Your task to perform on an android device: turn on location history Image 0: 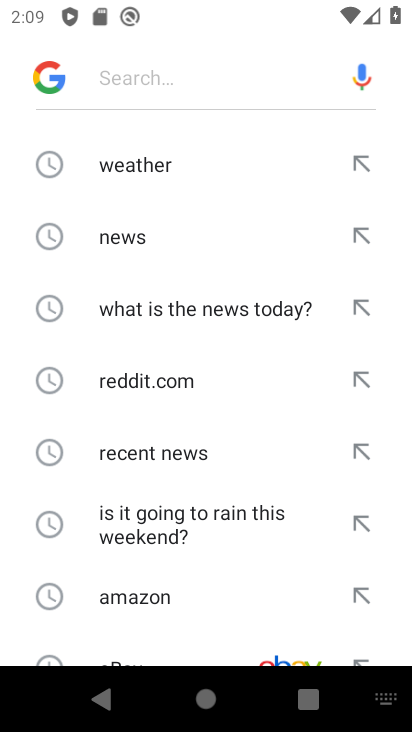
Step 0: press home button
Your task to perform on an android device: turn on location history Image 1: 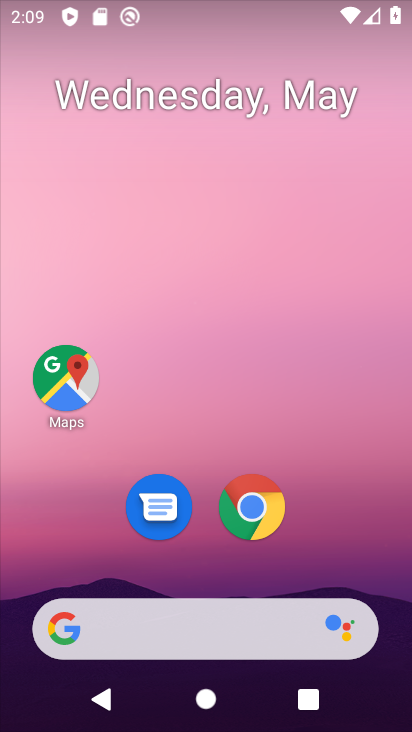
Step 1: drag from (381, 480) to (363, 182)
Your task to perform on an android device: turn on location history Image 2: 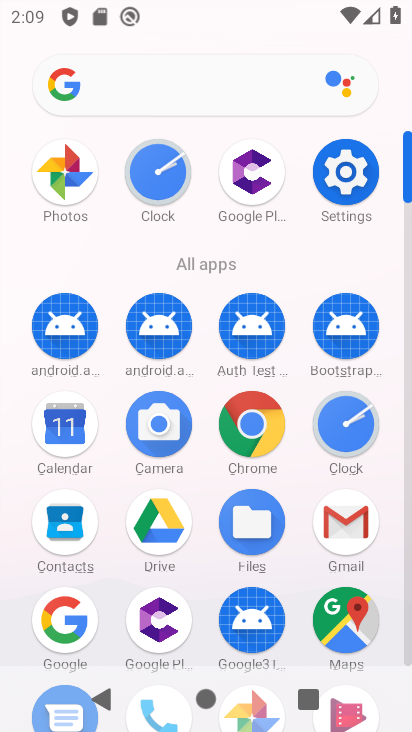
Step 2: click (357, 201)
Your task to perform on an android device: turn on location history Image 3: 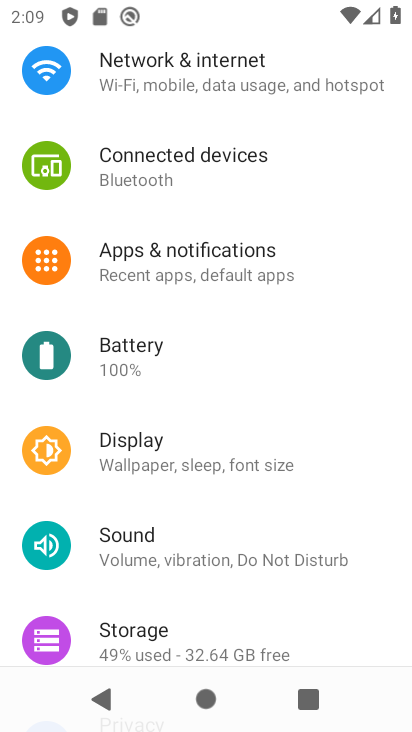
Step 3: drag from (273, 537) to (281, 233)
Your task to perform on an android device: turn on location history Image 4: 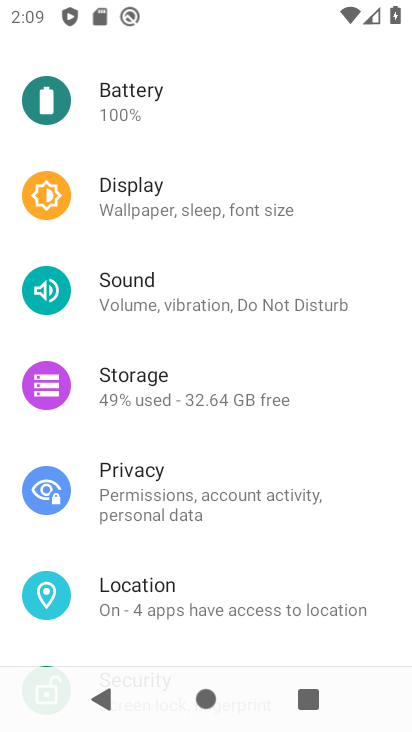
Step 4: drag from (293, 561) to (344, 254)
Your task to perform on an android device: turn on location history Image 5: 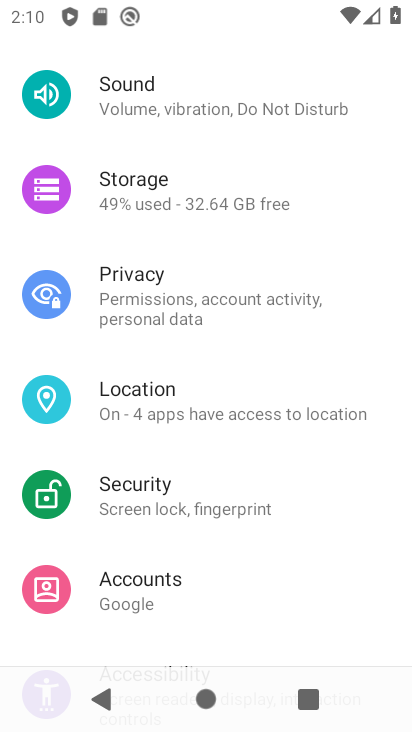
Step 5: drag from (315, 559) to (315, 308)
Your task to perform on an android device: turn on location history Image 6: 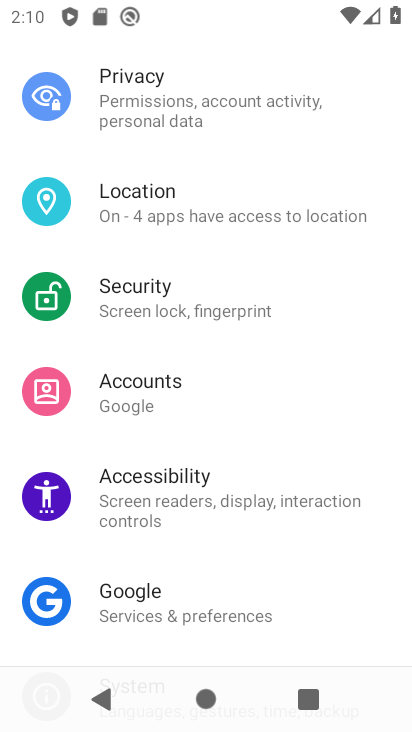
Step 6: click (194, 205)
Your task to perform on an android device: turn on location history Image 7: 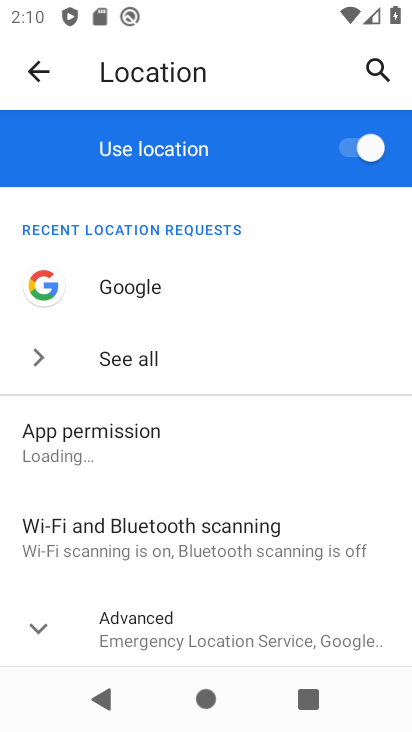
Step 7: drag from (260, 634) to (267, 338)
Your task to perform on an android device: turn on location history Image 8: 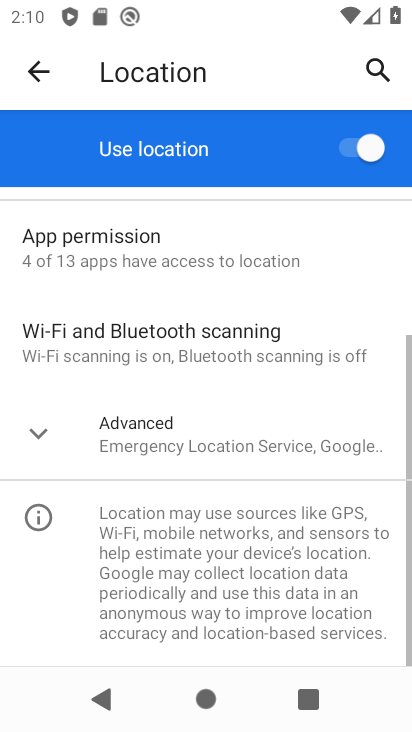
Step 8: click (61, 441)
Your task to perform on an android device: turn on location history Image 9: 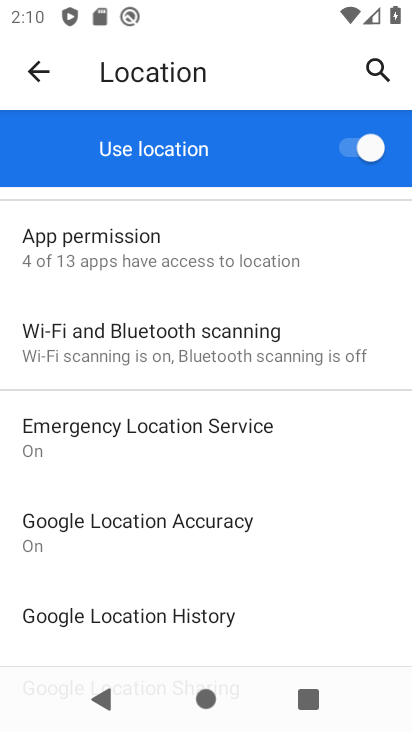
Step 9: drag from (279, 606) to (300, 280)
Your task to perform on an android device: turn on location history Image 10: 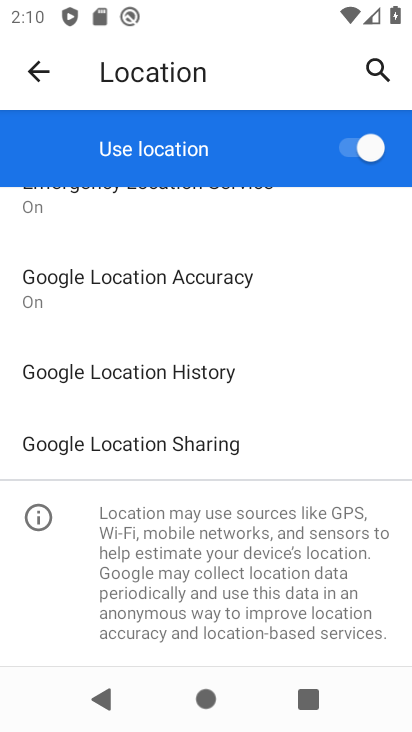
Step 10: click (132, 378)
Your task to perform on an android device: turn on location history Image 11: 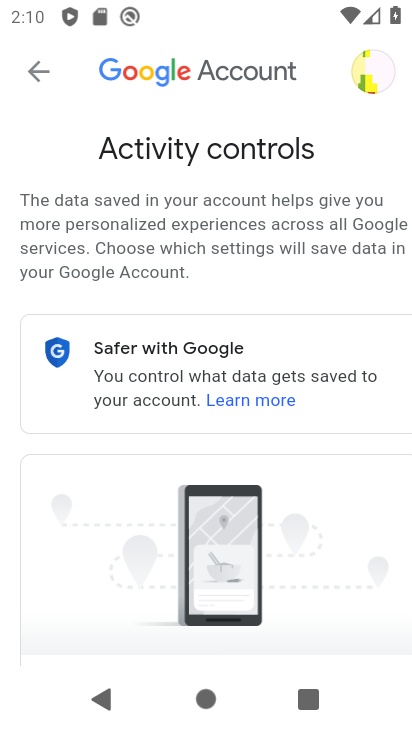
Step 11: drag from (151, 606) to (181, 270)
Your task to perform on an android device: turn on location history Image 12: 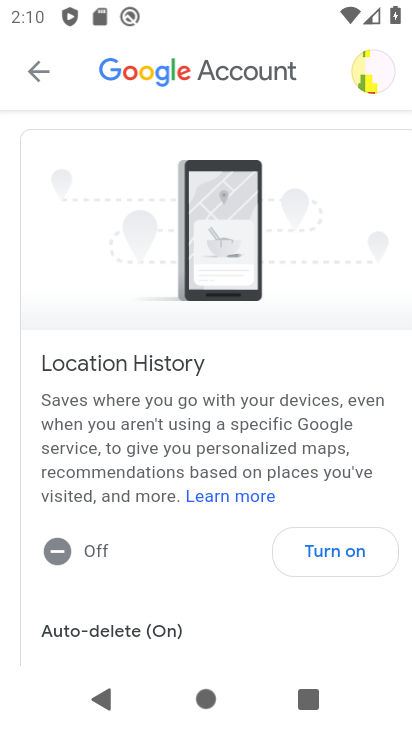
Step 12: drag from (216, 602) to (239, 408)
Your task to perform on an android device: turn on location history Image 13: 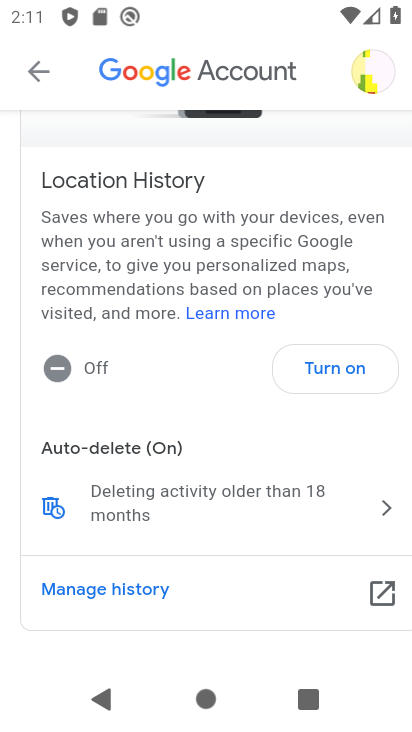
Step 13: click (315, 374)
Your task to perform on an android device: turn on location history Image 14: 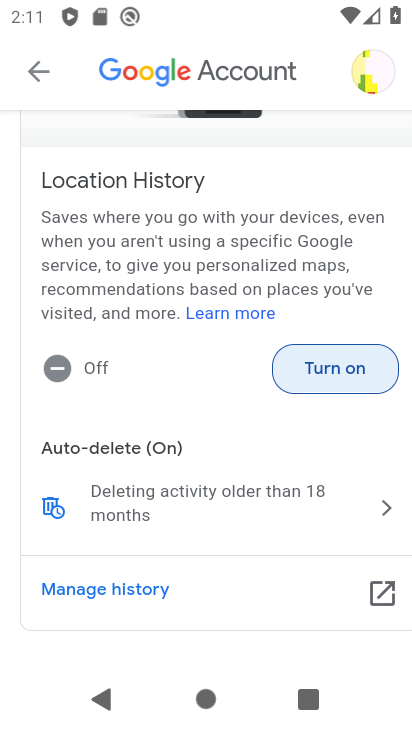
Step 14: click (321, 372)
Your task to perform on an android device: turn on location history Image 15: 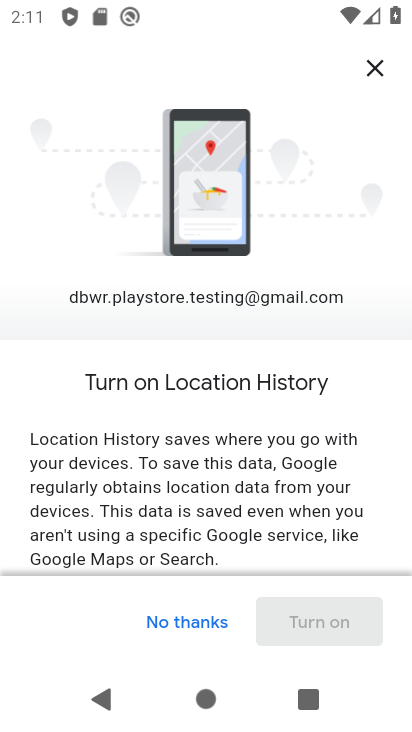
Step 15: drag from (339, 538) to (348, 168)
Your task to perform on an android device: turn on location history Image 16: 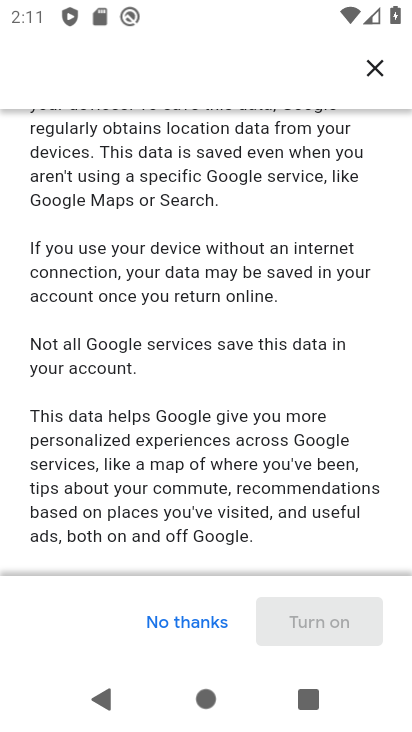
Step 16: drag from (357, 455) to (314, 134)
Your task to perform on an android device: turn on location history Image 17: 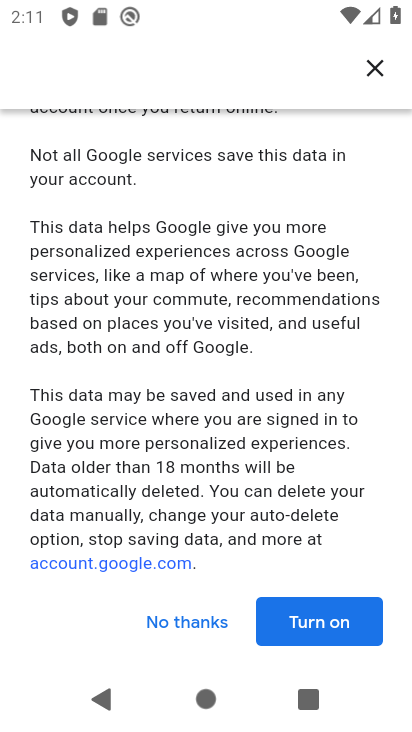
Step 17: click (297, 612)
Your task to perform on an android device: turn on location history Image 18: 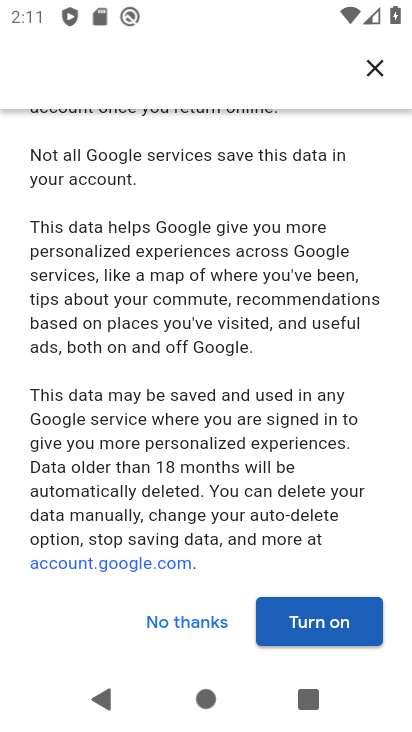
Step 18: click (299, 615)
Your task to perform on an android device: turn on location history Image 19: 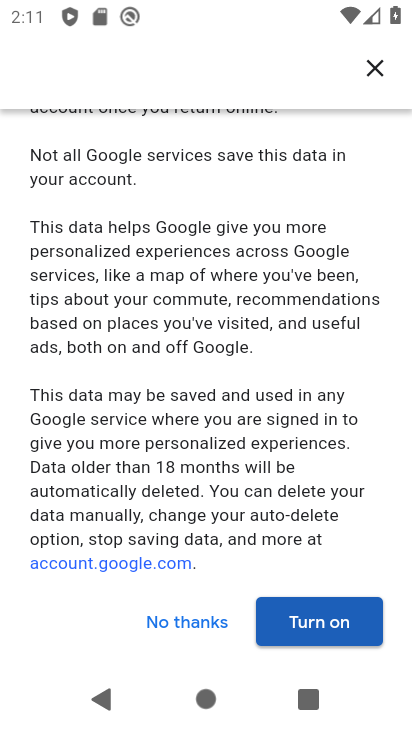
Step 19: click (304, 629)
Your task to perform on an android device: turn on location history Image 20: 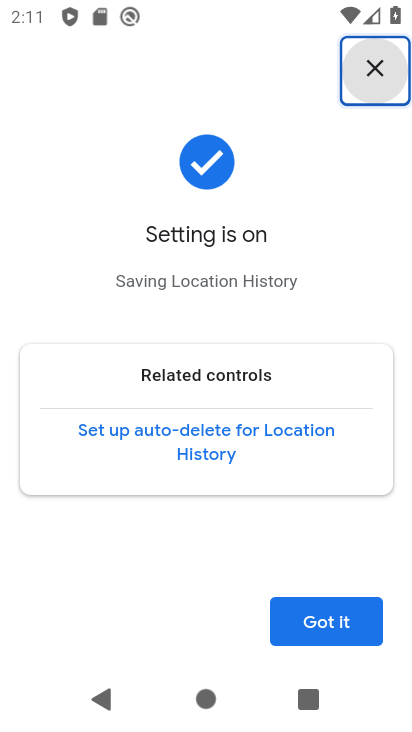
Step 20: task complete